Your task to perform on an android device: Open Chrome and go to settings Image 0: 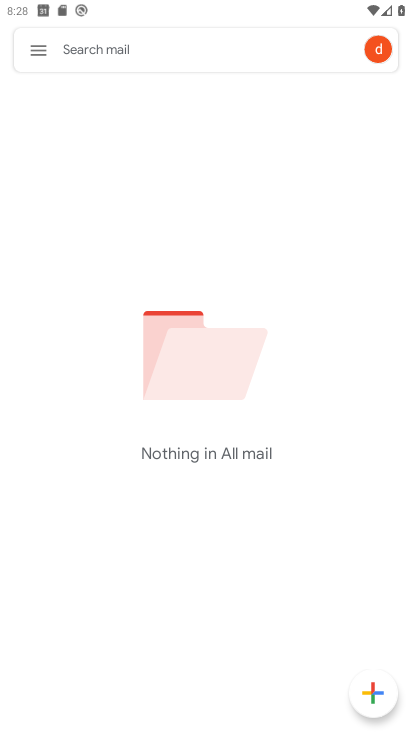
Step 0: press home button
Your task to perform on an android device: Open Chrome and go to settings Image 1: 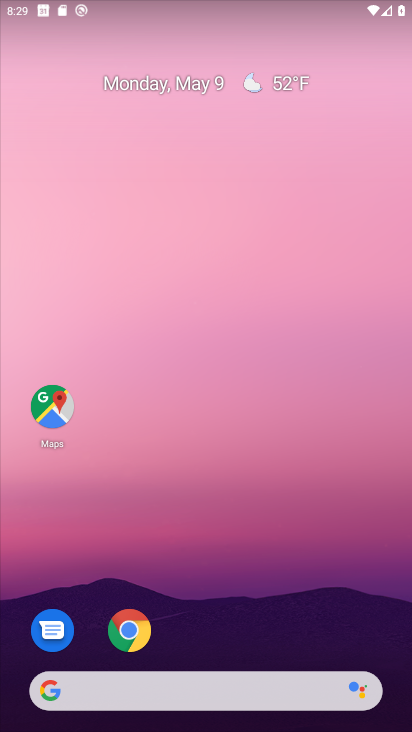
Step 1: click (143, 631)
Your task to perform on an android device: Open Chrome and go to settings Image 2: 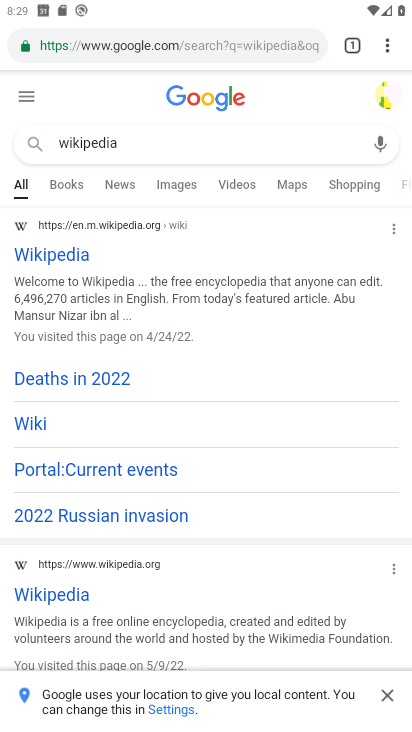
Step 2: click (383, 40)
Your task to perform on an android device: Open Chrome and go to settings Image 3: 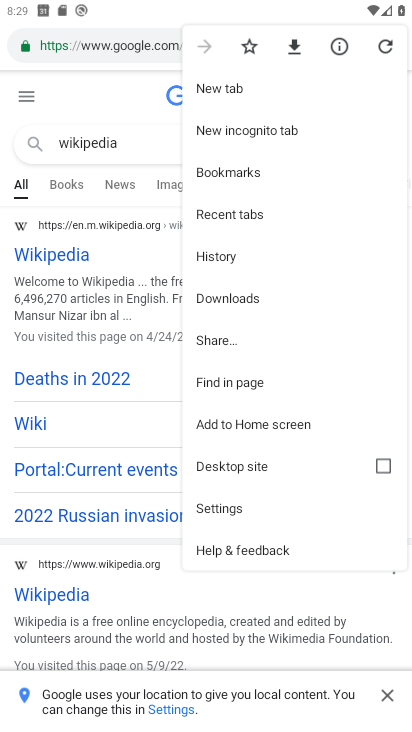
Step 3: click (211, 506)
Your task to perform on an android device: Open Chrome and go to settings Image 4: 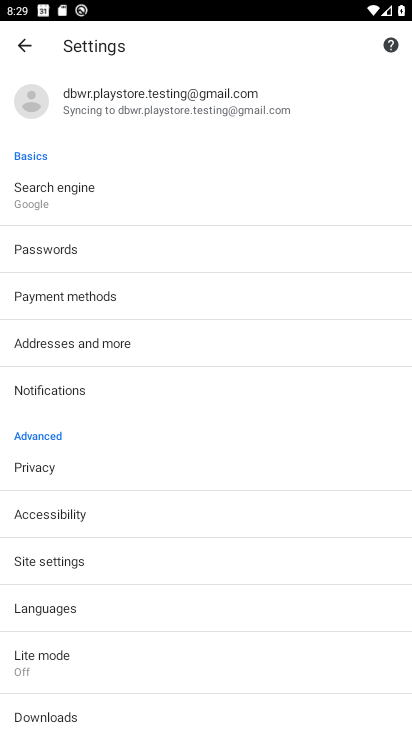
Step 4: task complete